Your task to perform on an android device: Open Android settings Image 0: 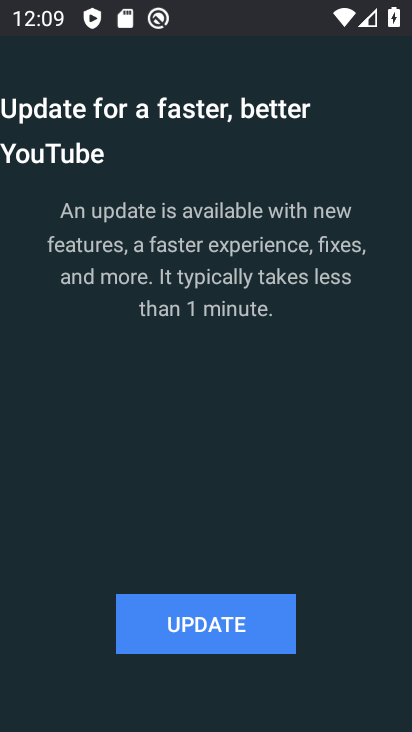
Step 0: press home button
Your task to perform on an android device: Open Android settings Image 1: 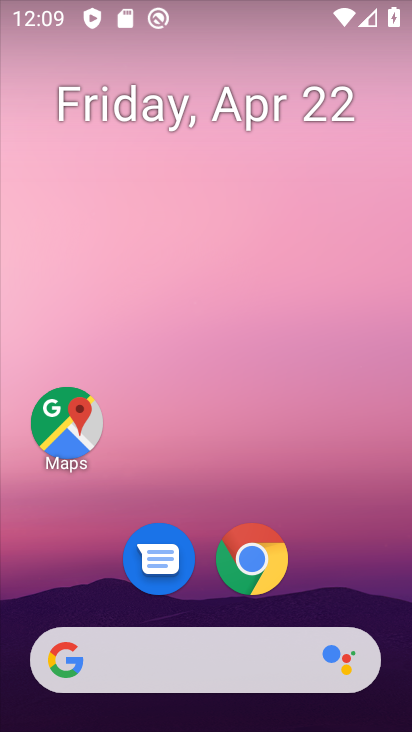
Step 1: drag from (352, 577) to (361, 188)
Your task to perform on an android device: Open Android settings Image 2: 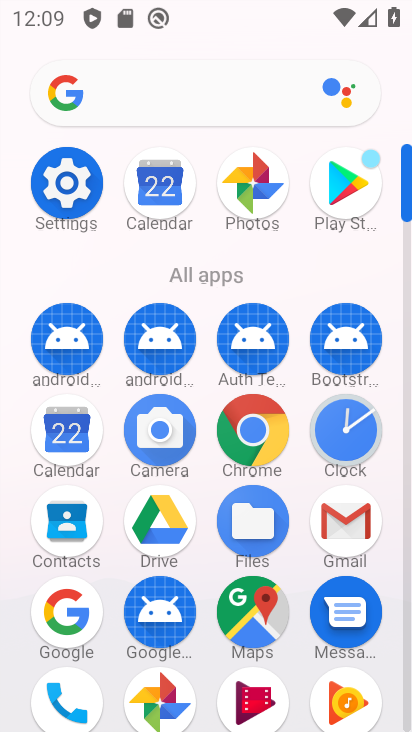
Step 2: click (72, 186)
Your task to perform on an android device: Open Android settings Image 3: 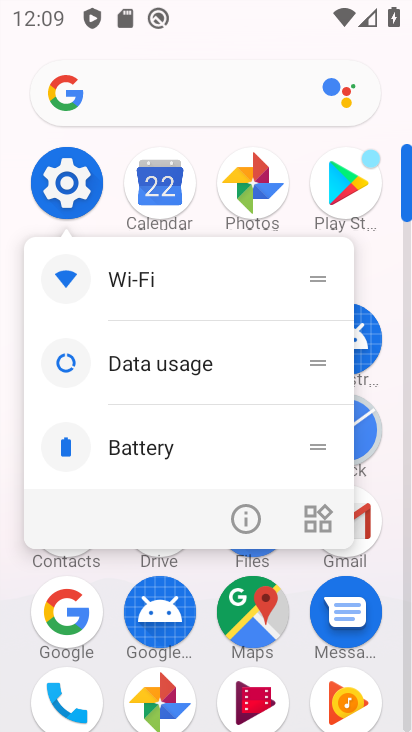
Step 3: click (49, 166)
Your task to perform on an android device: Open Android settings Image 4: 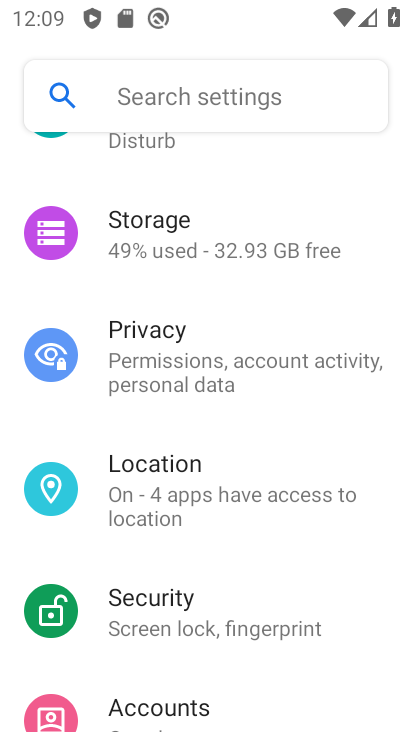
Step 4: drag from (373, 598) to (370, 458)
Your task to perform on an android device: Open Android settings Image 5: 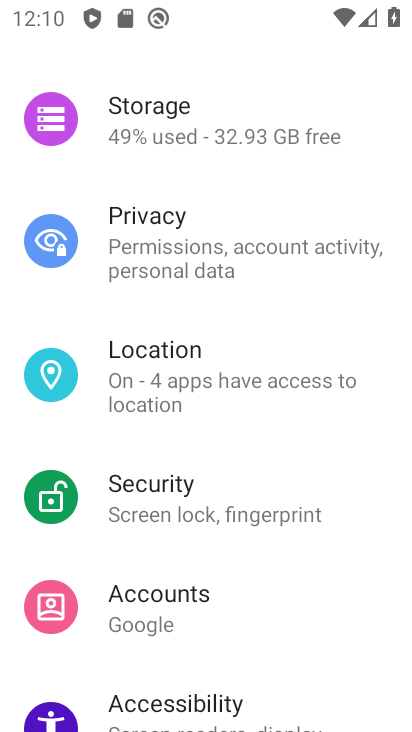
Step 5: drag from (370, 625) to (367, 483)
Your task to perform on an android device: Open Android settings Image 6: 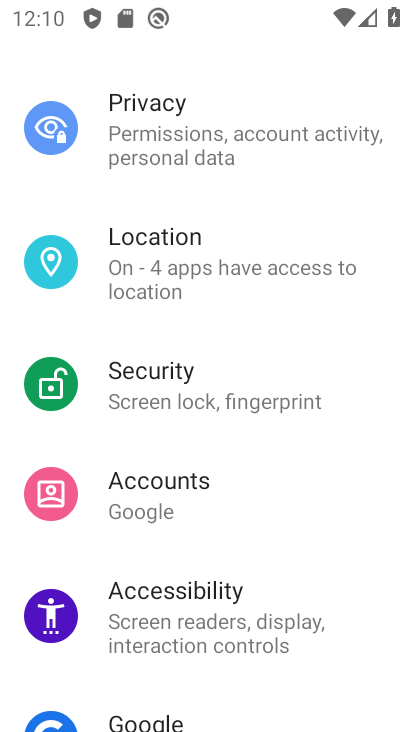
Step 6: drag from (361, 656) to (362, 499)
Your task to perform on an android device: Open Android settings Image 7: 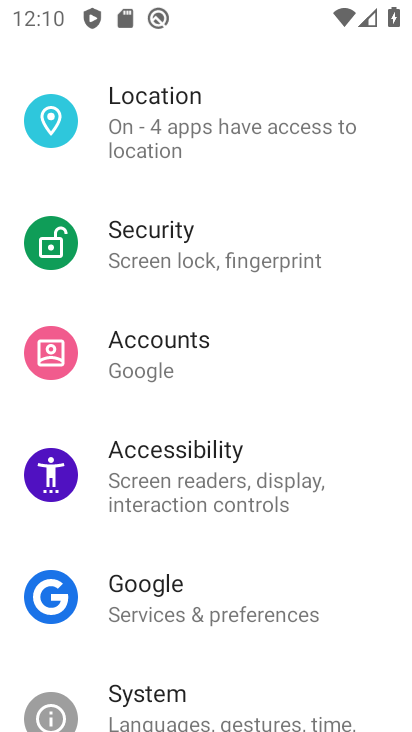
Step 7: drag from (358, 654) to (363, 495)
Your task to perform on an android device: Open Android settings Image 8: 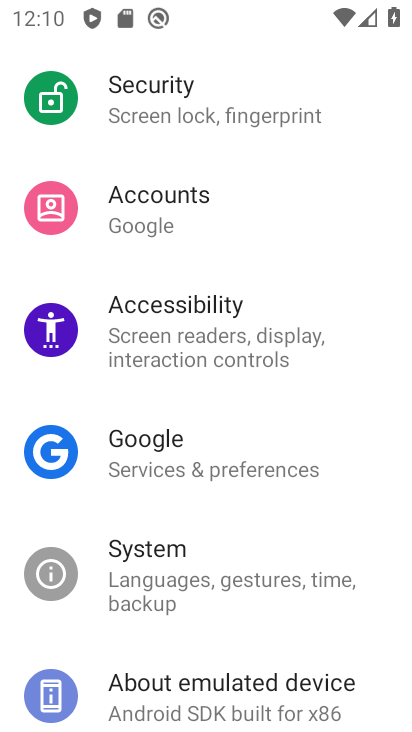
Step 8: drag from (376, 679) to (386, 537)
Your task to perform on an android device: Open Android settings Image 9: 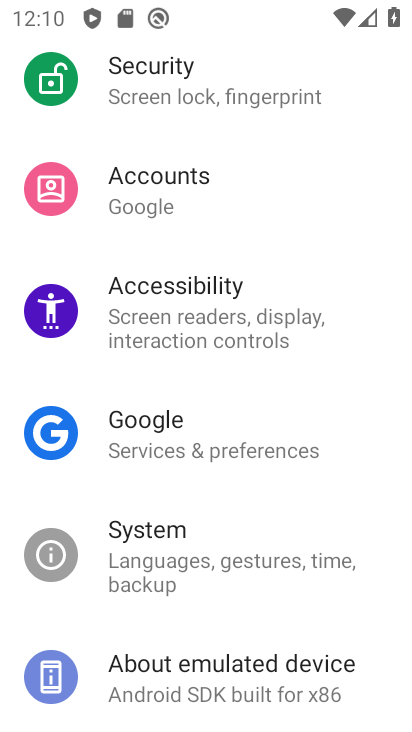
Step 9: click (301, 557)
Your task to perform on an android device: Open Android settings Image 10: 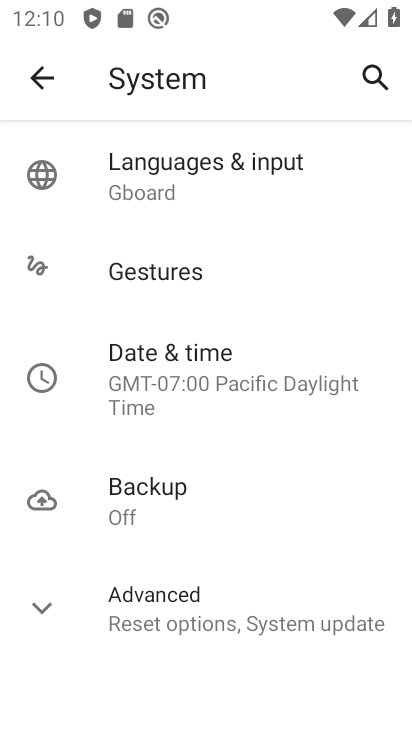
Step 10: click (274, 617)
Your task to perform on an android device: Open Android settings Image 11: 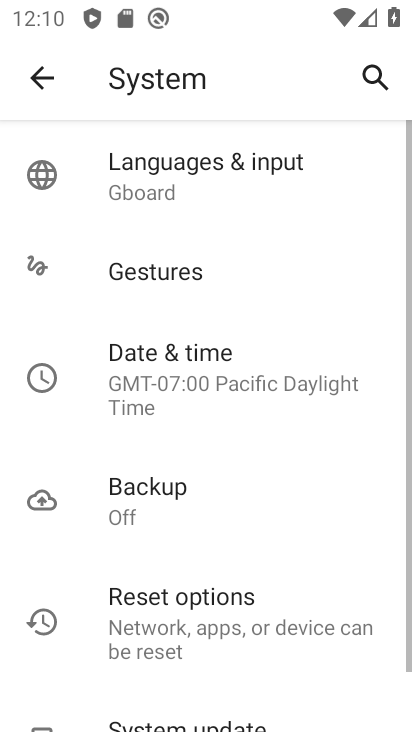
Step 11: task complete